Your task to perform on an android device: turn off improve location accuracy Image 0: 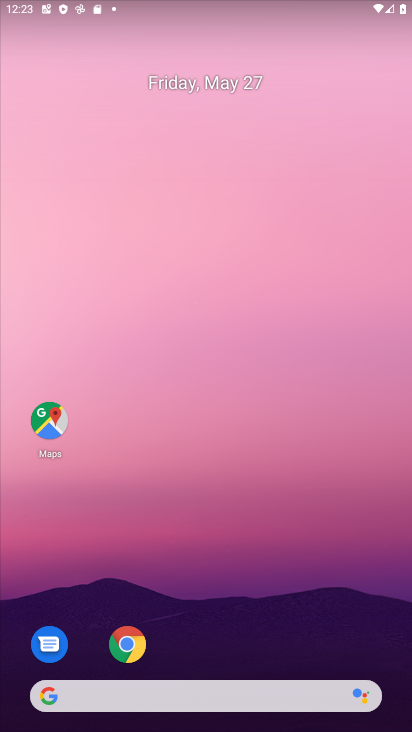
Step 0: drag from (323, 621) to (302, 50)
Your task to perform on an android device: turn off improve location accuracy Image 1: 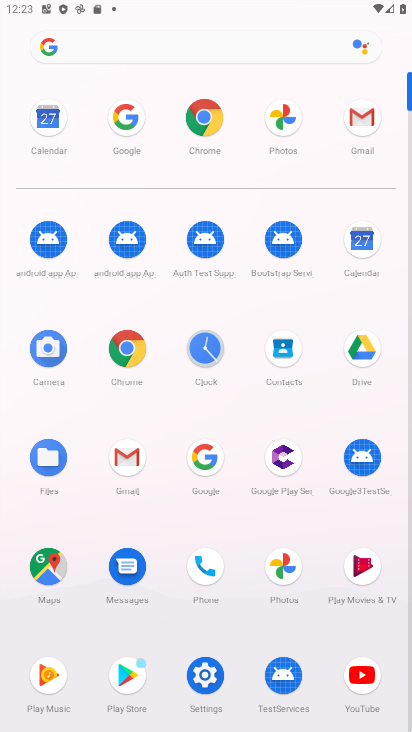
Step 1: click (217, 677)
Your task to perform on an android device: turn off improve location accuracy Image 2: 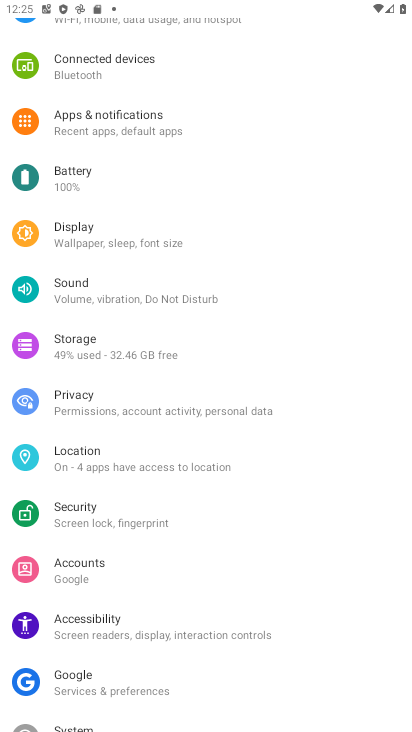
Step 2: click (73, 462)
Your task to perform on an android device: turn off improve location accuracy Image 3: 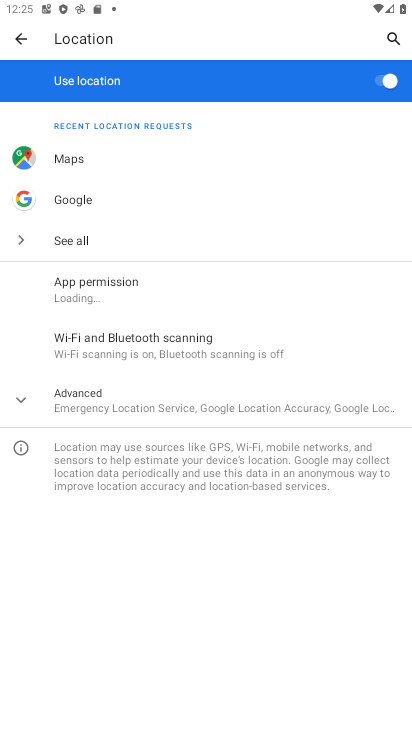
Step 3: click (163, 417)
Your task to perform on an android device: turn off improve location accuracy Image 4: 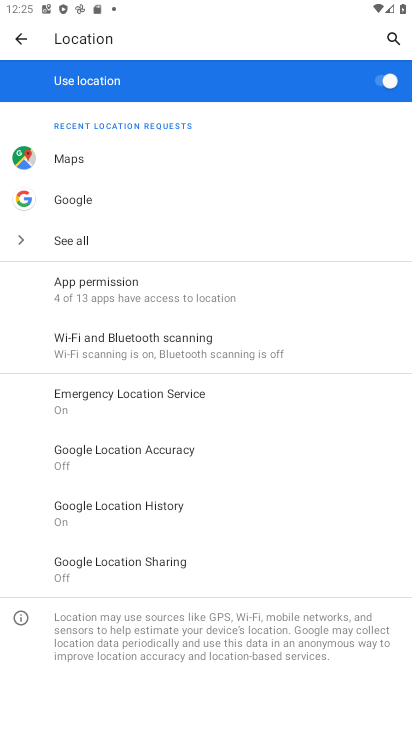
Step 4: click (164, 448)
Your task to perform on an android device: turn off improve location accuracy Image 5: 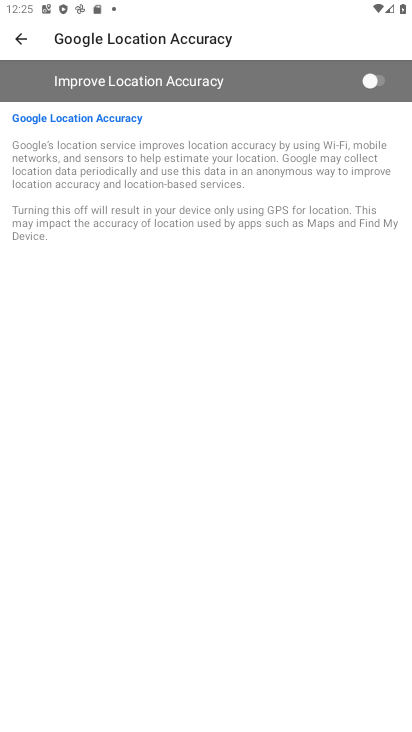
Step 5: click (373, 79)
Your task to perform on an android device: turn off improve location accuracy Image 6: 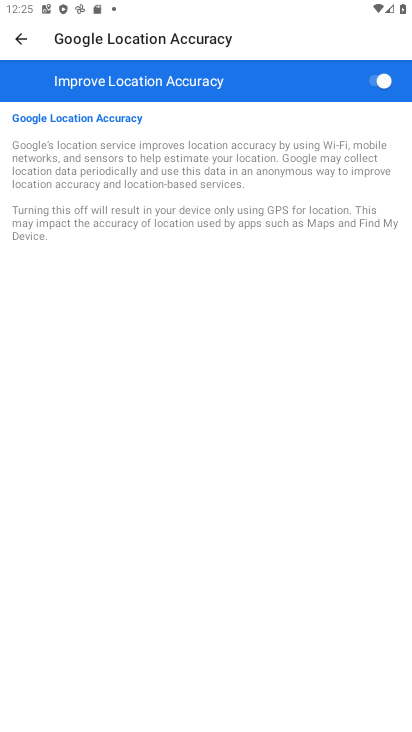
Step 6: click (373, 79)
Your task to perform on an android device: turn off improve location accuracy Image 7: 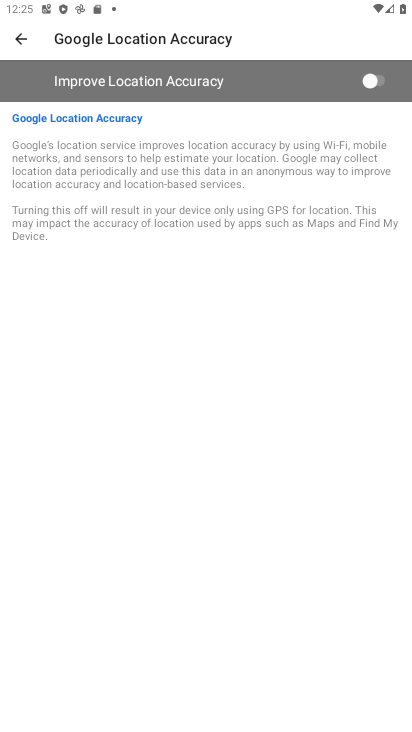
Step 7: task complete